Your task to perform on an android device: Do I have any events this weekend? Image 0: 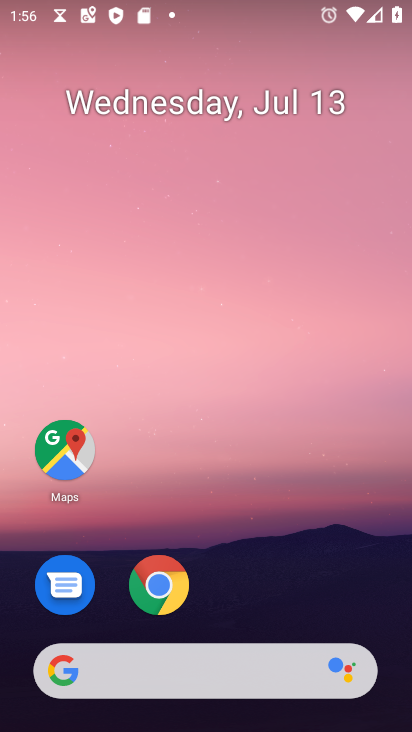
Step 0: press home button
Your task to perform on an android device: Do I have any events this weekend? Image 1: 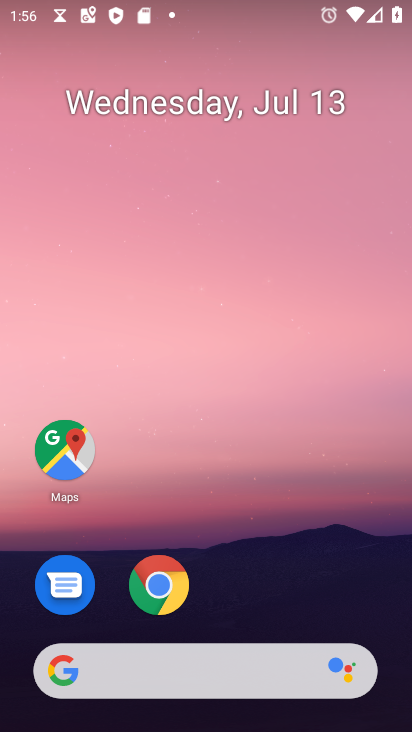
Step 1: click (168, 661)
Your task to perform on an android device: Do I have any events this weekend? Image 2: 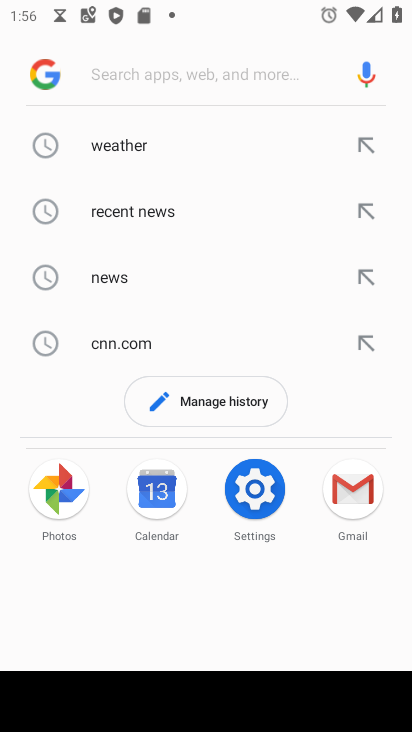
Step 2: press home button
Your task to perform on an android device: Do I have any events this weekend? Image 3: 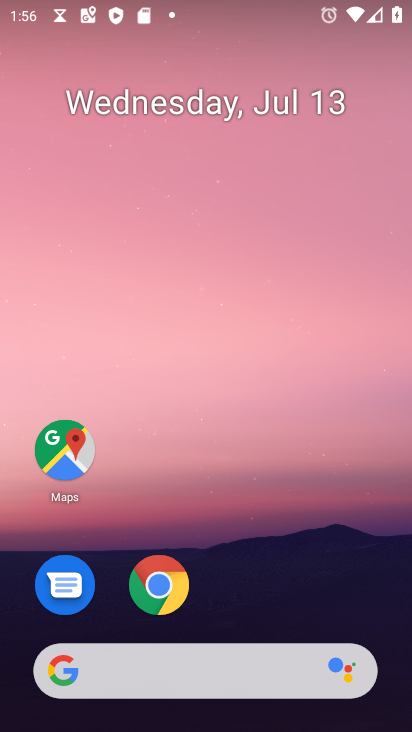
Step 3: drag from (220, 624) to (348, 169)
Your task to perform on an android device: Do I have any events this weekend? Image 4: 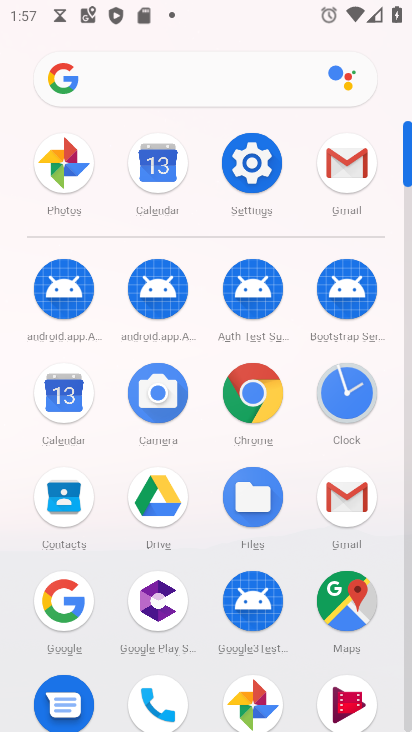
Step 4: click (68, 391)
Your task to perform on an android device: Do I have any events this weekend? Image 5: 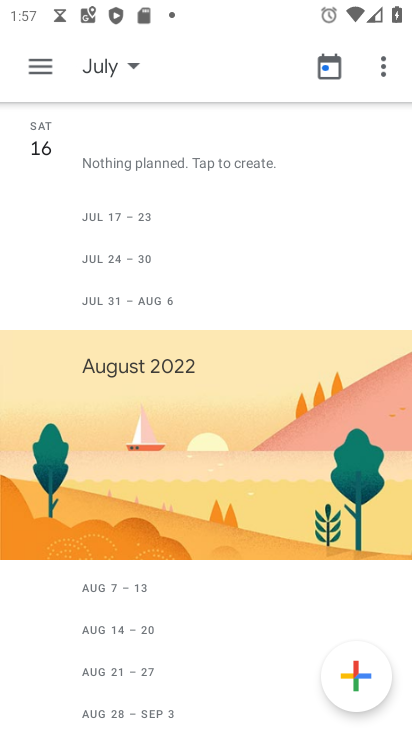
Step 5: click (108, 65)
Your task to perform on an android device: Do I have any events this weekend? Image 6: 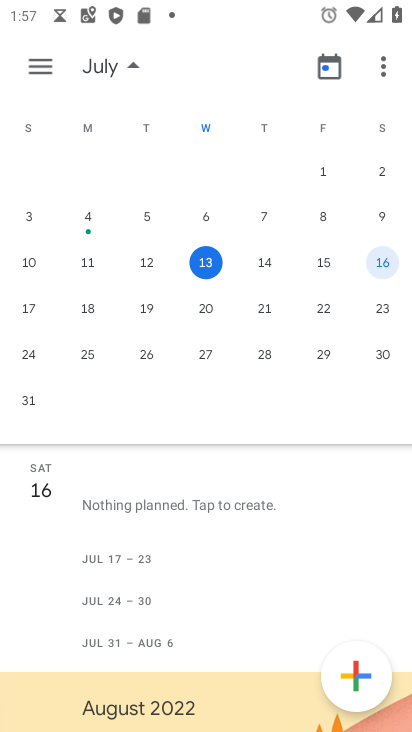
Step 6: click (377, 261)
Your task to perform on an android device: Do I have any events this weekend? Image 7: 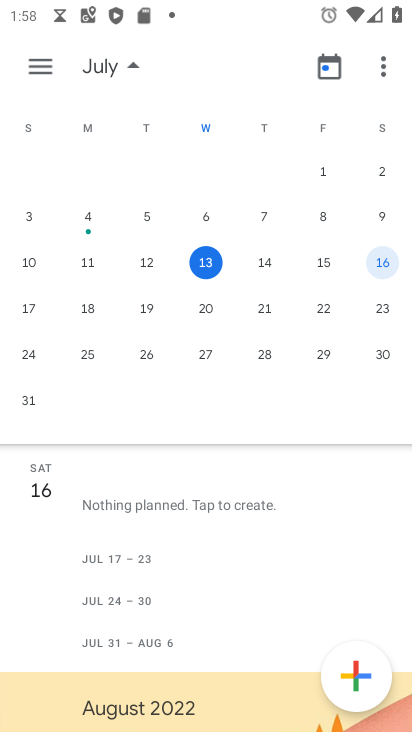
Step 7: click (37, 60)
Your task to perform on an android device: Do I have any events this weekend? Image 8: 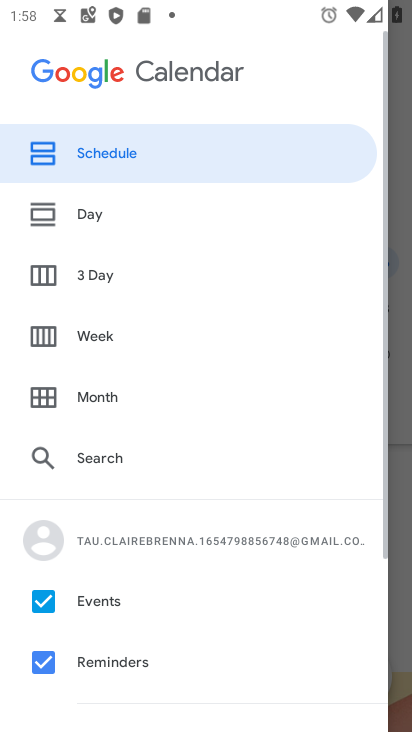
Step 8: click (95, 214)
Your task to perform on an android device: Do I have any events this weekend? Image 9: 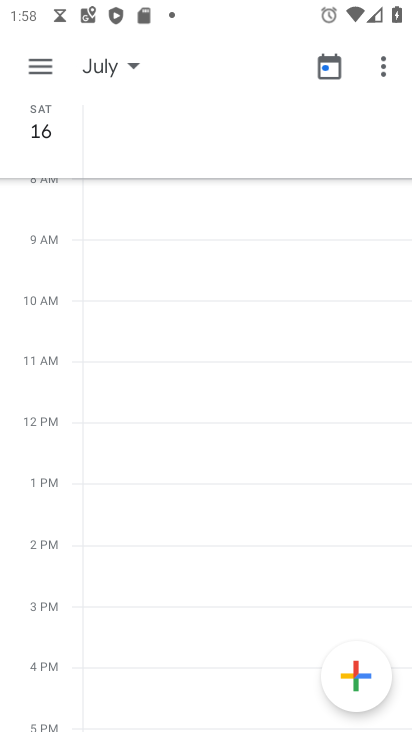
Step 9: click (40, 72)
Your task to perform on an android device: Do I have any events this weekend? Image 10: 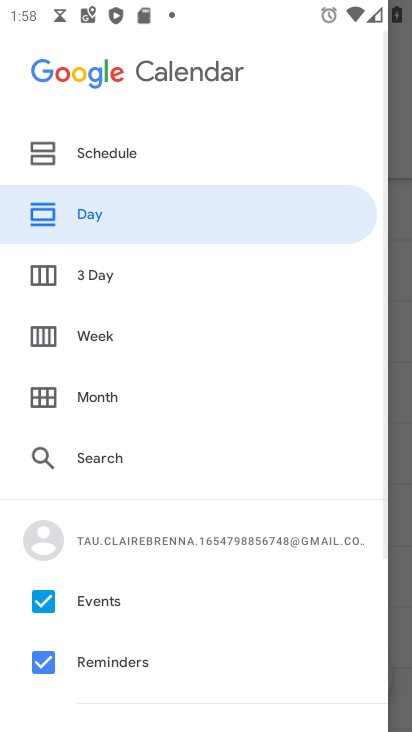
Step 10: click (108, 145)
Your task to perform on an android device: Do I have any events this weekend? Image 11: 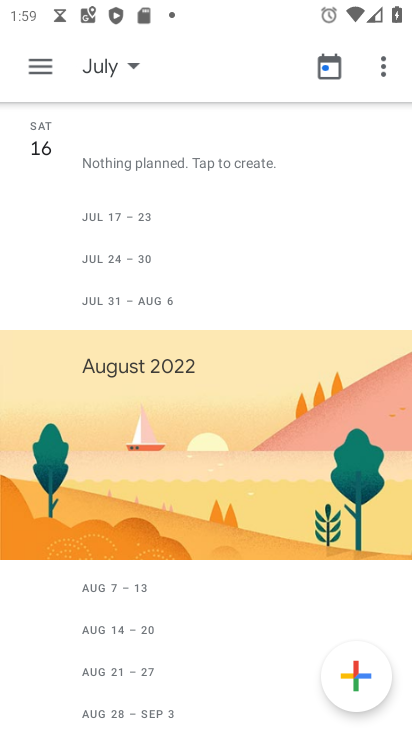
Step 11: task complete